Your task to perform on an android device: refresh tabs in the chrome app Image 0: 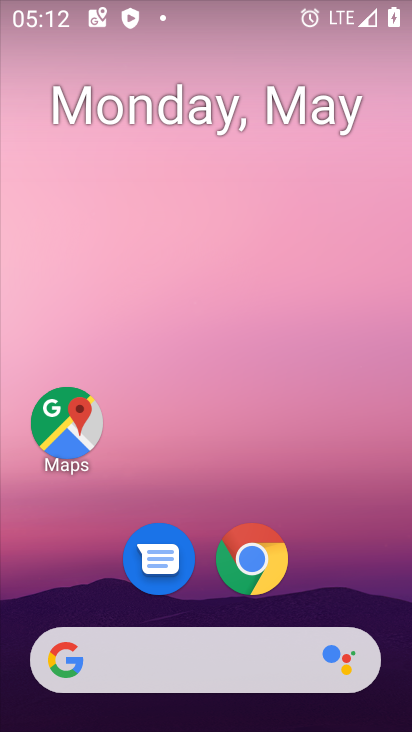
Step 0: drag from (254, 669) to (266, 26)
Your task to perform on an android device: refresh tabs in the chrome app Image 1: 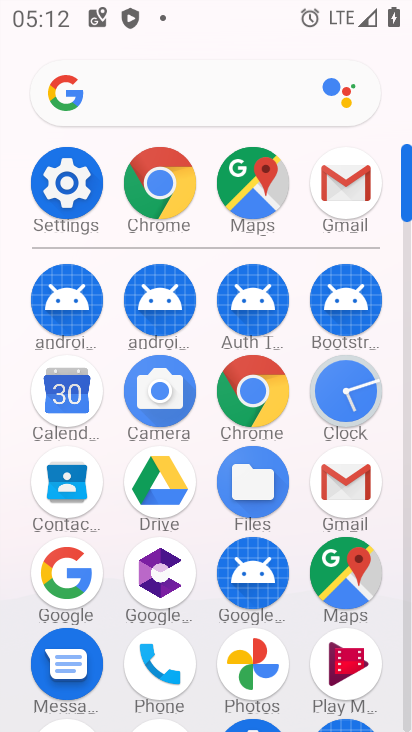
Step 1: click (270, 406)
Your task to perform on an android device: refresh tabs in the chrome app Image 2: 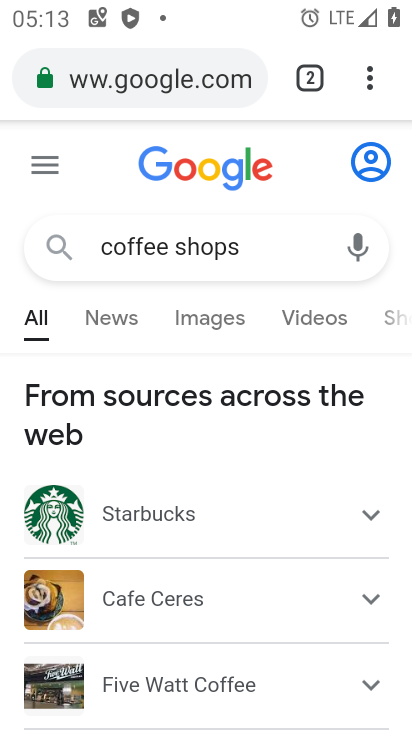
Step 2: click (357, 49)
Your task to perform on an android device: refresh tabs in the chrome app Image 3: 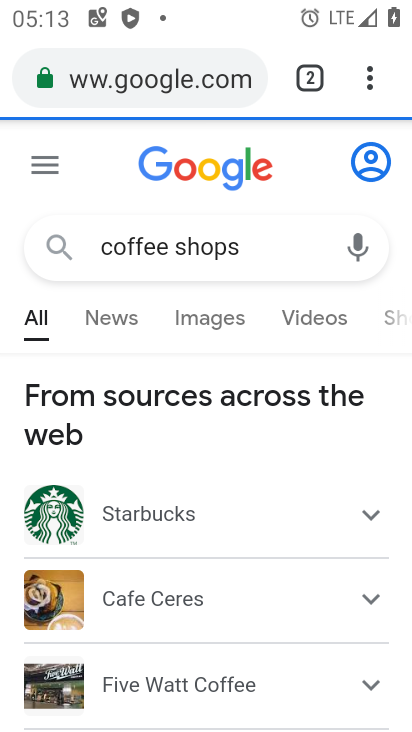
Step 3: drag from (365, 77) to (405, 304)
Your task to perform on an android device: refresh tabs in the chrome app Image 4: 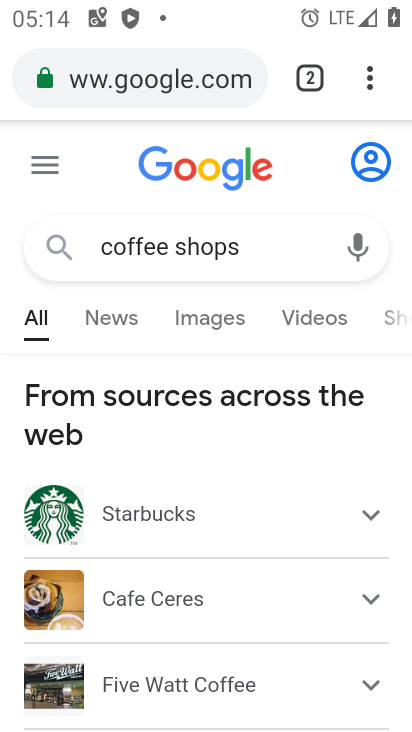
Step 4: click (373, 62)
Your task to perform on an android device: refresh tabs in the chrome app Image 5: 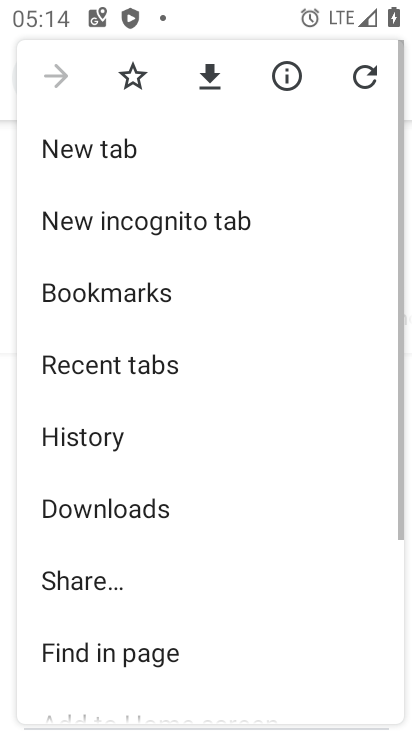
Step 5: task complete